Your task to perform on an android device: check out phone information Image 0: 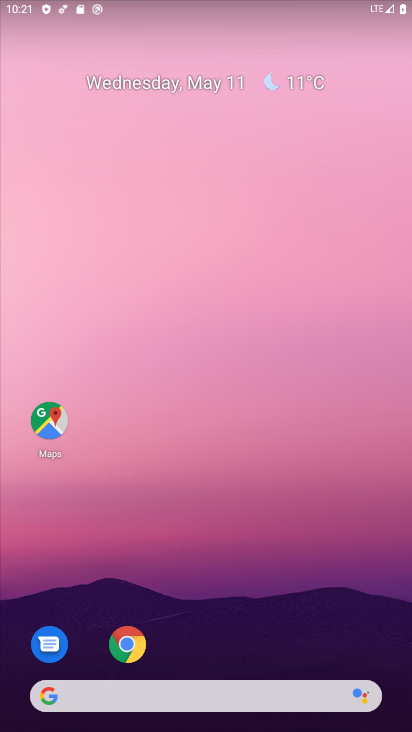
Step 0: press home button
Your task to perform on an android device: check out phone information Image 1: 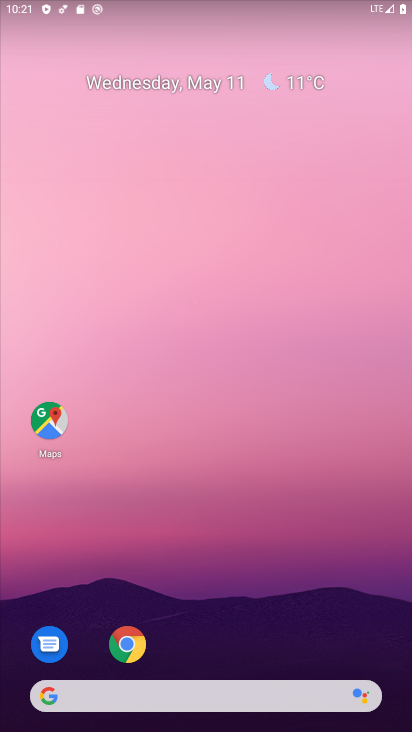
Step 1: drag from (207, 642) to (272, 131)
Your task to perform on an android device: check out phone information Image 2: 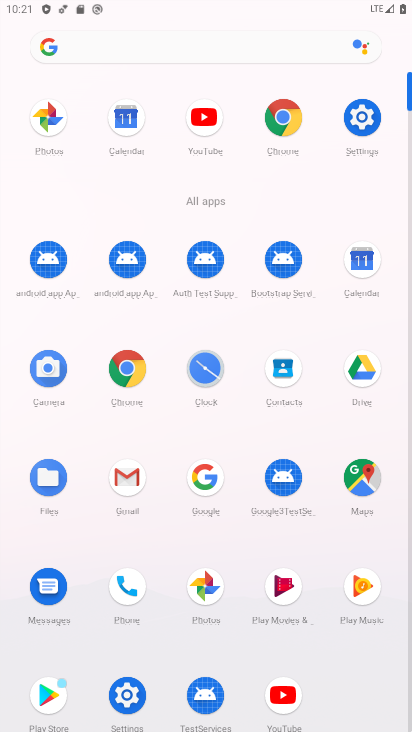
Step 2: drag from (218, 512) to (218, 175)
Your task to perform on an android device: check out phone information Image 3: 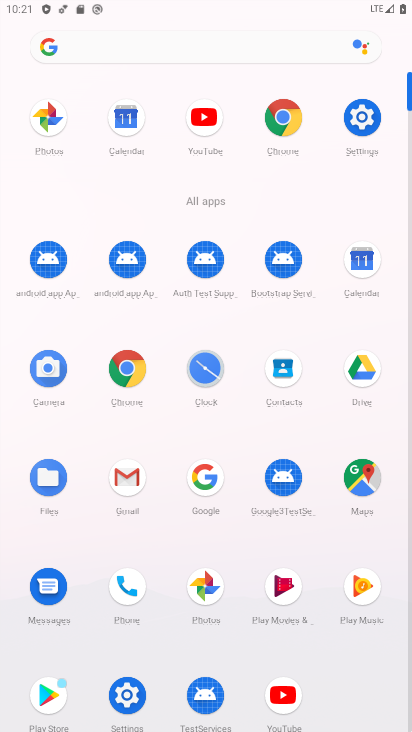
Step 3: click (122, 692)
Your task to perform on an android device: check out phone information Image 4: 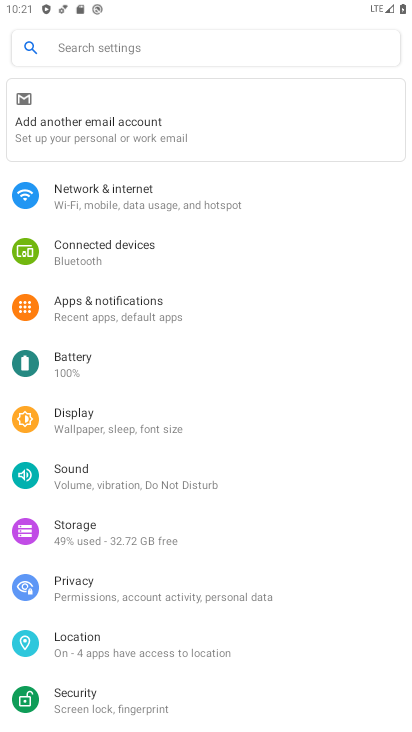
Step 4: drag from (159, 662) to (188, 160)
Your task to perform on an android device: check out phone information Image 5: 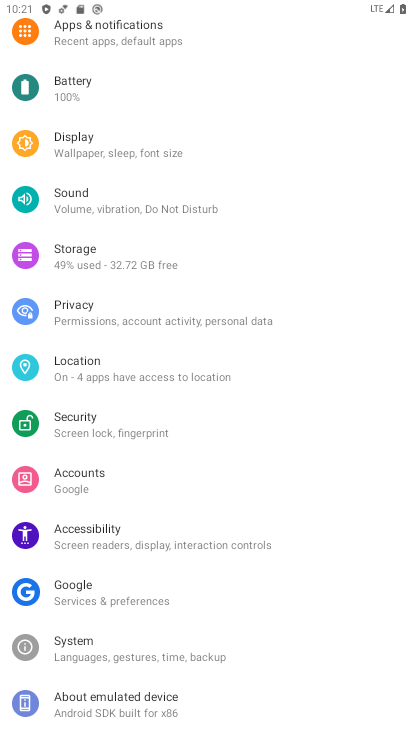
Step 5: click (194, 704)
Your task to perform on an android device: check out phone information Image 6: 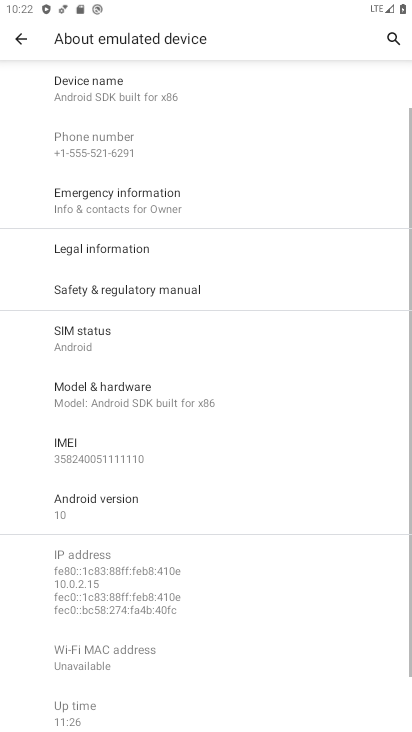
Step 6: task complete